Your task to perform on an android device: Is it going to rain tomorrow? Image 0: 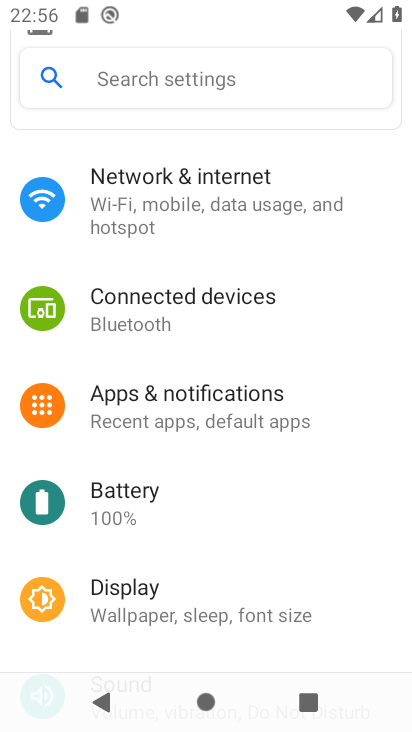
Step 0: press home button
Your task to perform on an android device: Is it going to rain tomorrow? Image 1: 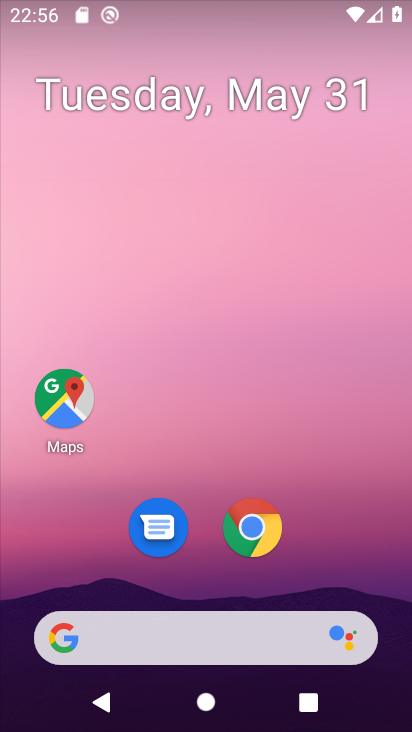
Step 1: drag from (340, 533) to (247, 82)
Your task to perform on an android device: Is it going to rain tomorrow? Image 2: 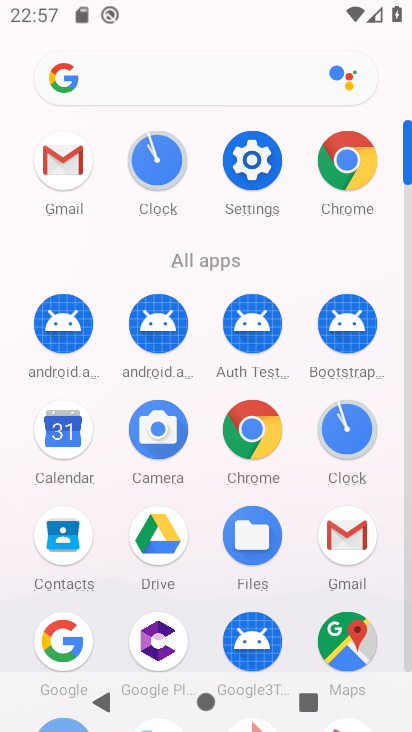
Step 2: click (71, 646)
Your task to perform on an android device: Is it going to rain tomorrow? Image 3: 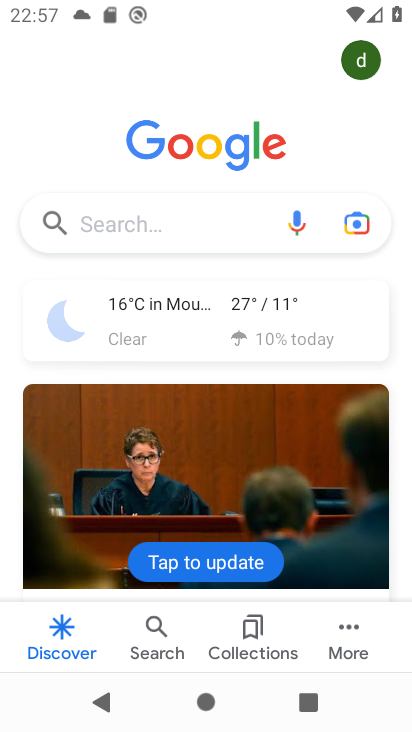
Step 3: click (269, 306)
Your task to perform on an android device: Is it going to rain tomorrow? Image 4: 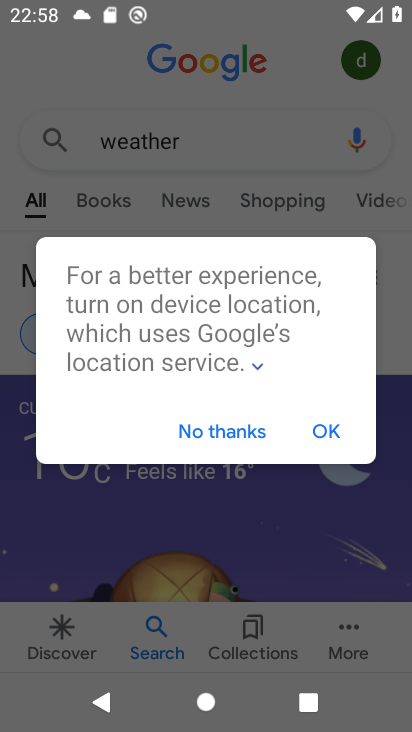
Step 4: click (219, 436)
Your task to perform on an android device: Is it going to rain tomorrow? Image 5: 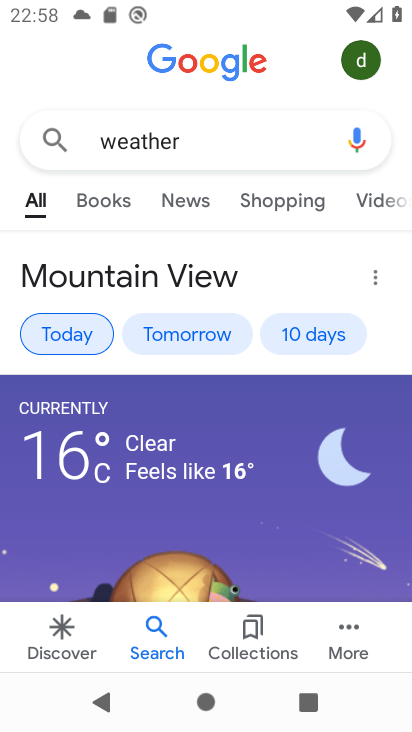
Step 5: click (194, 331)
Your task to perform on an android device: Is it going to rain tomorrow? Image 6: 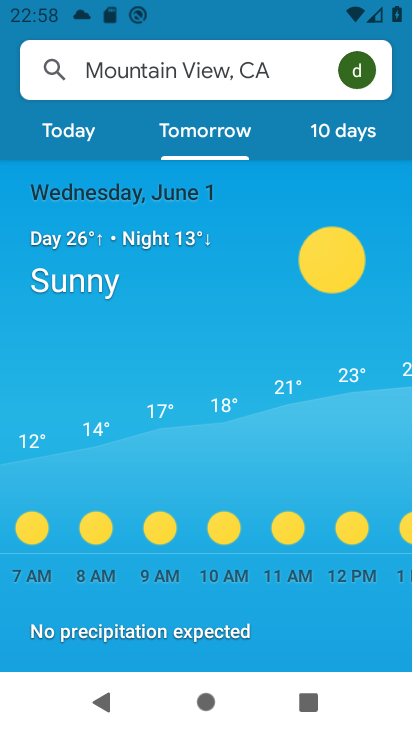
Step 6: task complete